Your task to perform on an android device: visit the assistant section in the google photos Image 0: 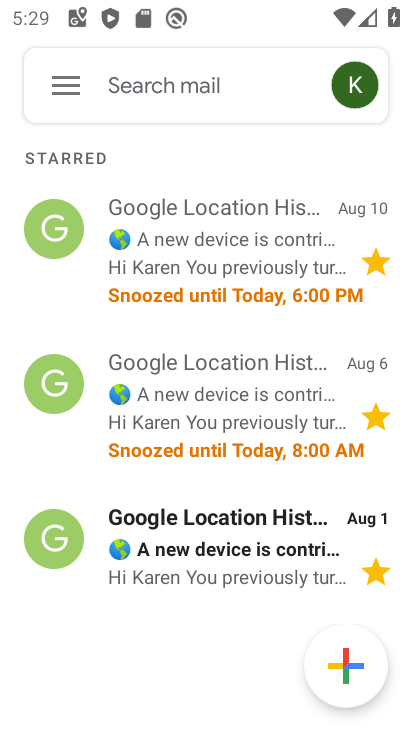
Step 0: press home button
Your task to perform on an android device: visit the assistant section in the google photos Image 1: 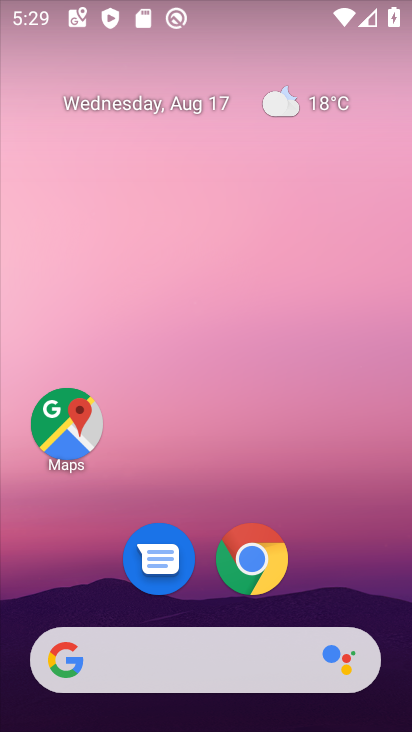
Step 1: drag from (226, 656) to (239, 120)
Your task to perform on an android device: visit the assistant section in the google photos Image 2: 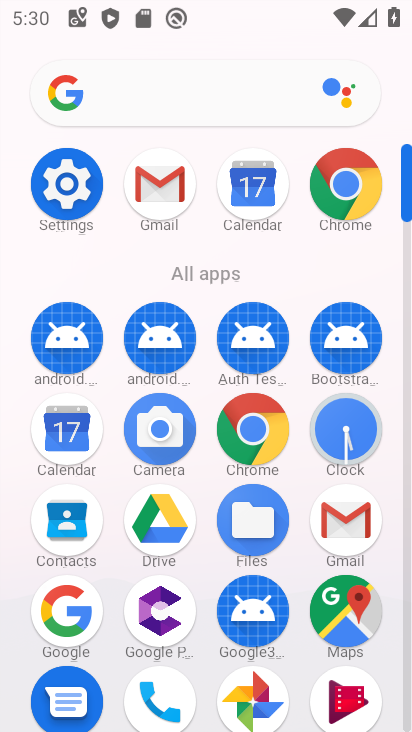
Step 2: click (258, 687)
Your task to perform on an android device: visit the assistant section in the google photos Image 3: 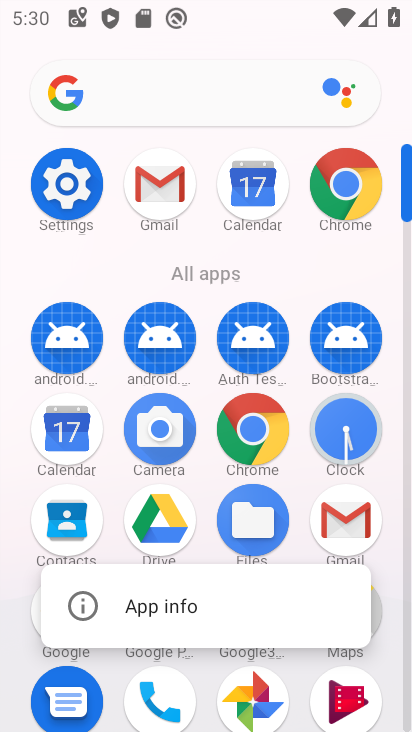
Step 3: click (259, 704)
Your task to perform on an android device: visit the assistant section in the google photos Image 4: 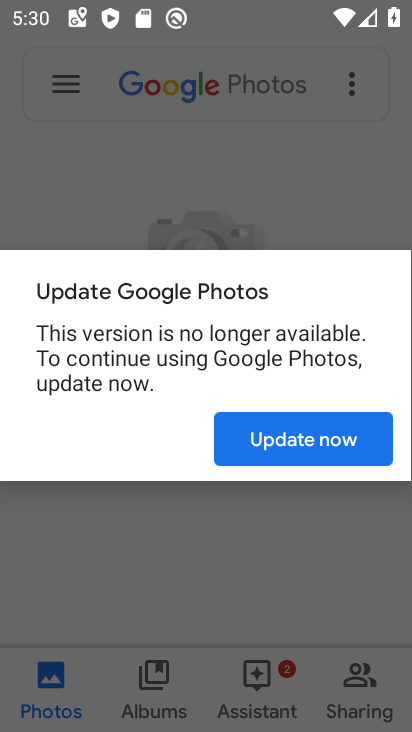
Step 4: click (286, 435)
Your task to perform on an android device: visit the assistant section in the google photos Image 5: 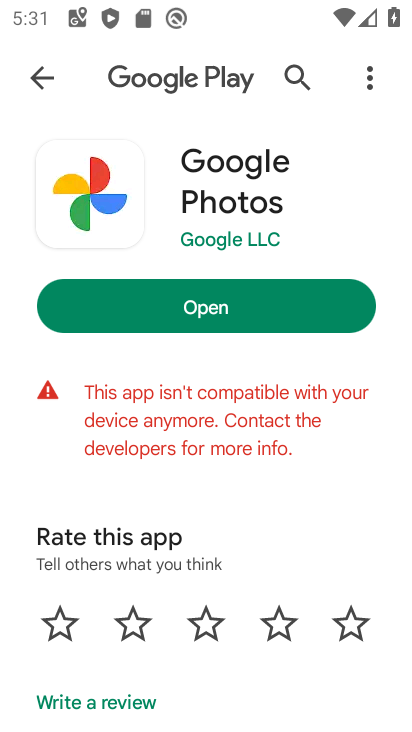
Step 5: task complete